Your task to perform on an android device: turn notification dots on Image 0: 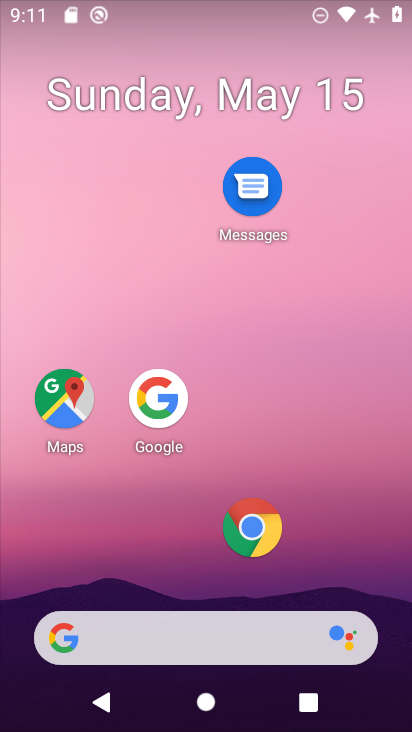
Step 0: drag from (191, 584) to (319, 169)
Your task to perform on an android device: turn notification dots on Image 1: 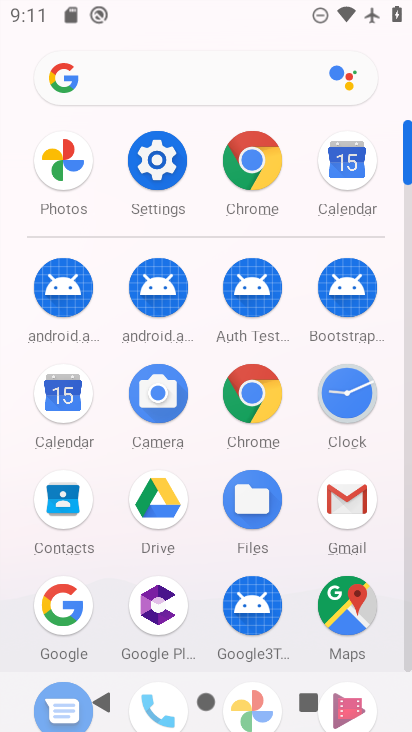
Step 1: click (150, 180)
Your task to perform on an android device: turn notification dots on Image 2: 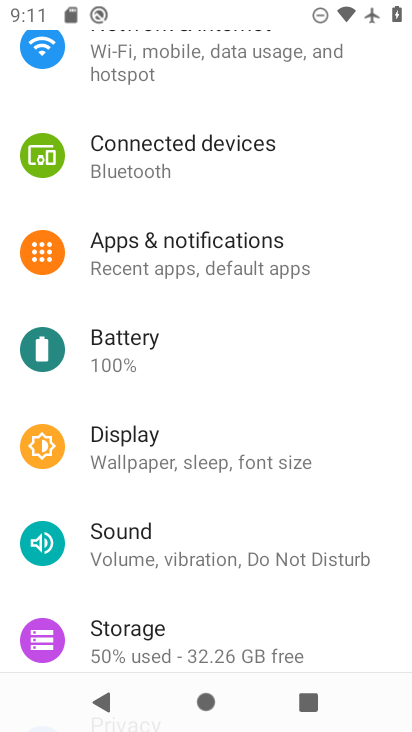
Step 2: click (231, 242)
Your task to perform on an android device: turn notification dots on Image 3: 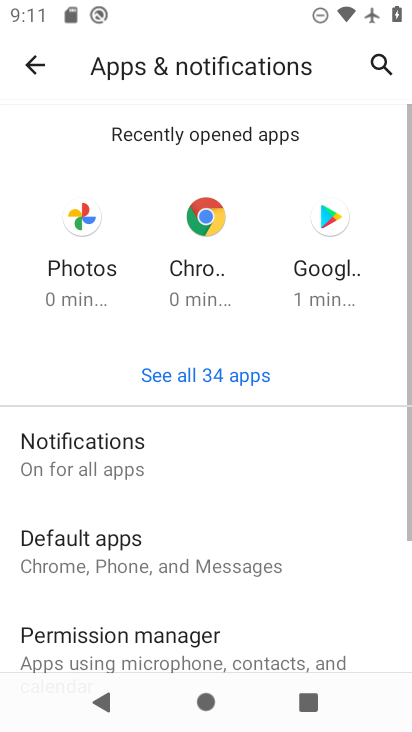
Step 3: click (132, 454)
Your task to perform on an android device: turn notification dots on Image 4: 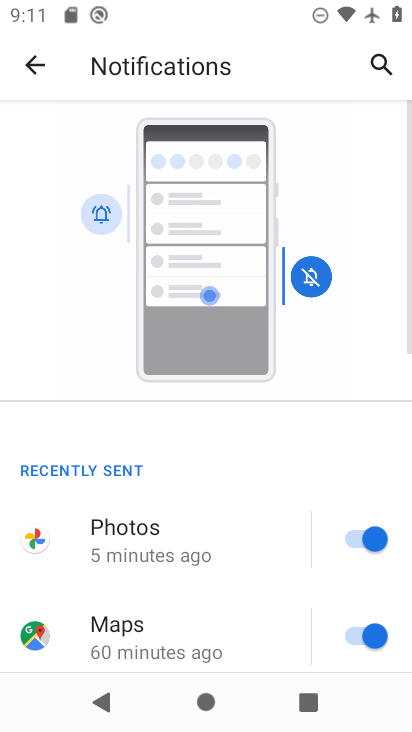
Step 4: drag from (175, 624) to (352, 96)
Your task to perform on an android device: turn notification dots on Image 5: 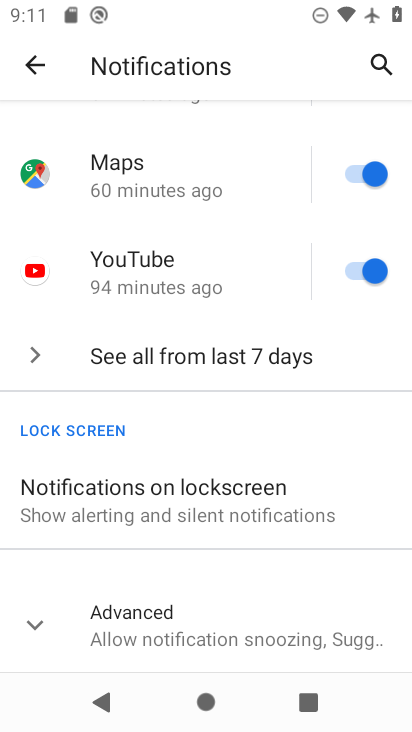
Step 5: click (146, 621)
Your task to perform on an android device: turn notification dots on Image 6: 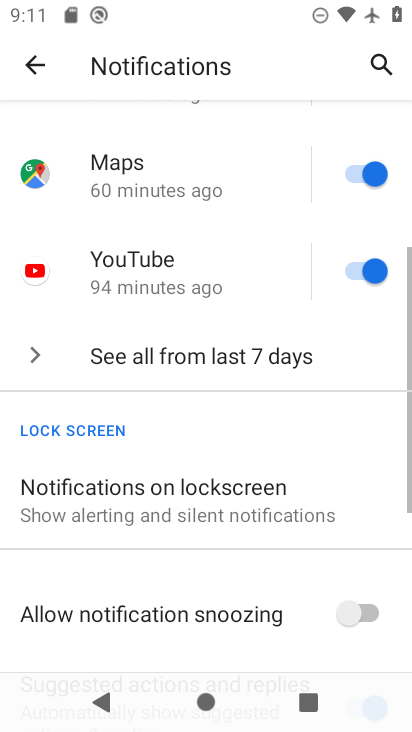
Step 6: task complete